Your task to perform on an android device: Go to wifi settings Image 0: 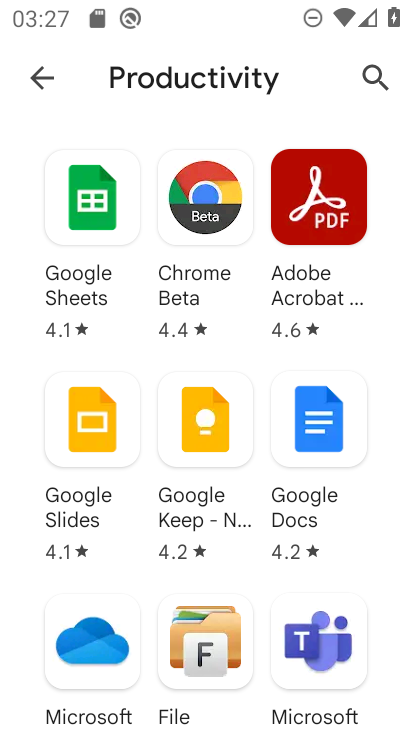
Step 0: press back button
Your task to perform on an android device: Go to wifi settings Image 1: 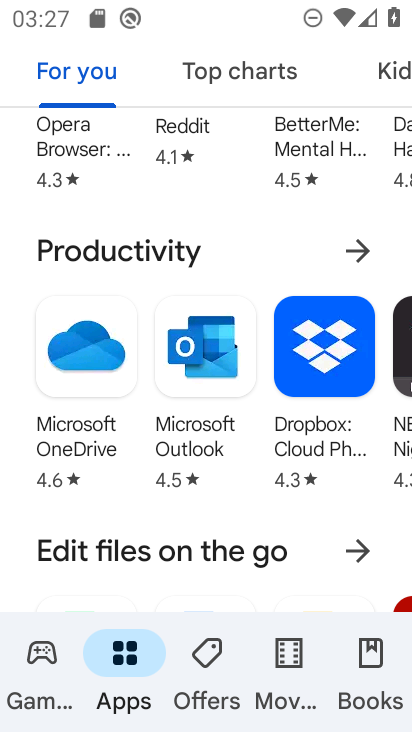
Step 1: press back button
Your task to perform on an android device: Go to wifi settings Image 2: 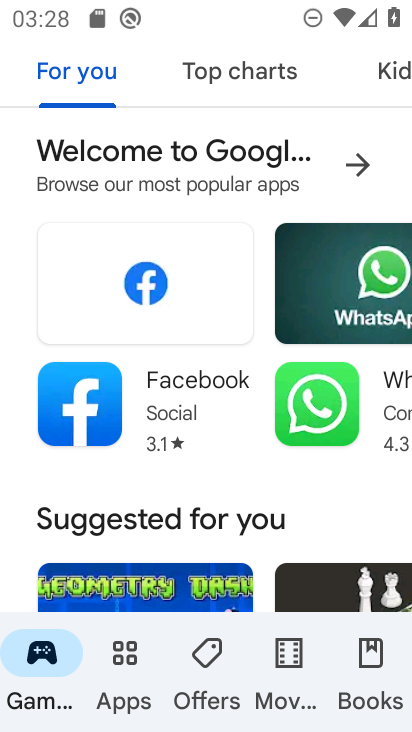
Step 2: drag from (126, 17) to (166, 613)
Your task to perform on an android device: Go to wifi settings Image 3: 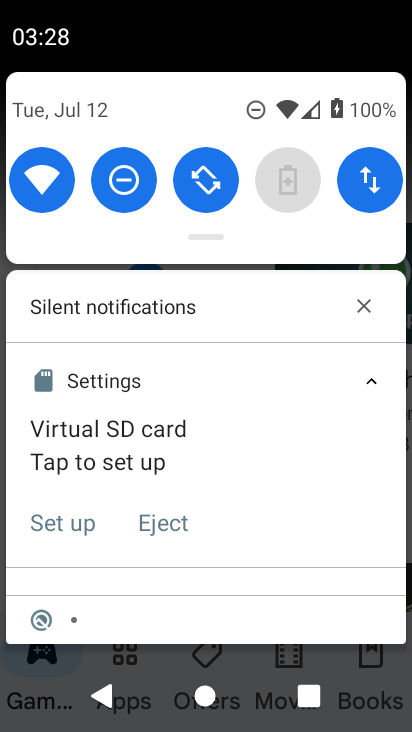
Step 3: click (35, 176)
Your task to perform on an android device: Go to wifi settings Image 4: 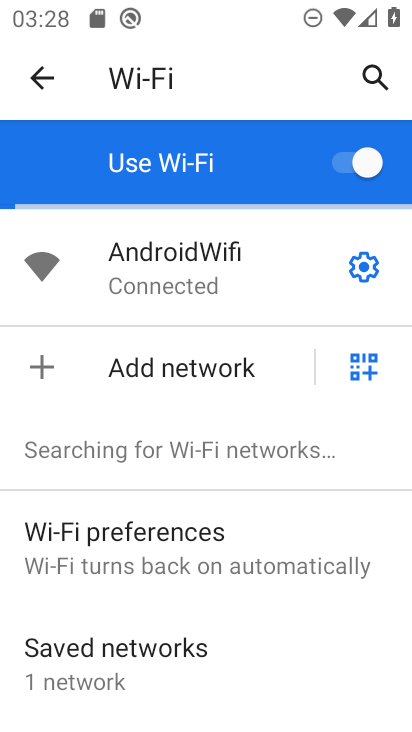
Step 4: task complete